Your task to perform on an android device: find which apps use the phone's location Image 0: 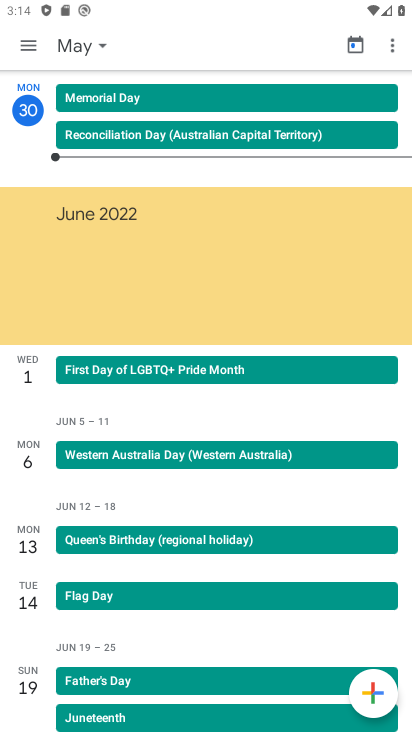
Step 0: press home button
Your task to perform on an android device: find which apps use the phone's location Image 1: 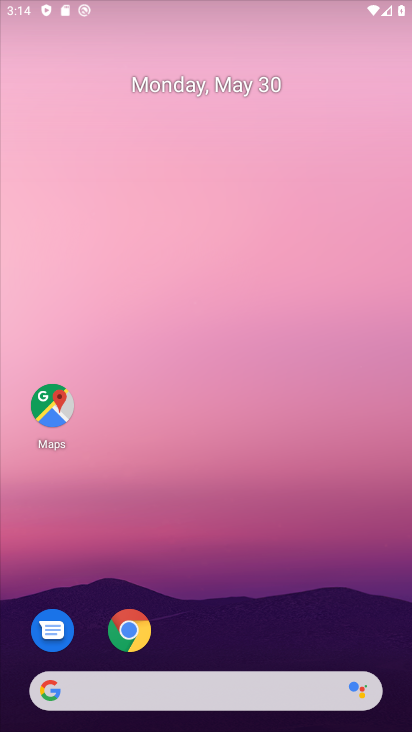
Step 1: drag from (227, 644) to (215, 109)
Your task to perform on an android device: find which apps use the phone's location Image 2: 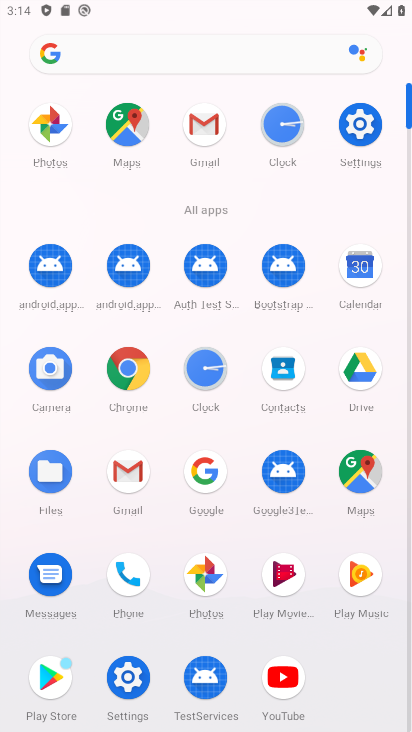
Step 2: click (128, 590)
Your task to perform on an android device: find which apps use the phone's location Image 3: 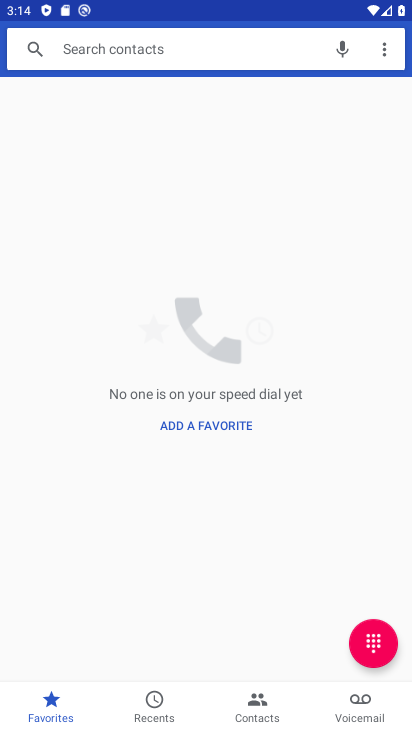
Step 3: press home button
Your task to perform on an android device: find which apps use the phone's location Image 4: 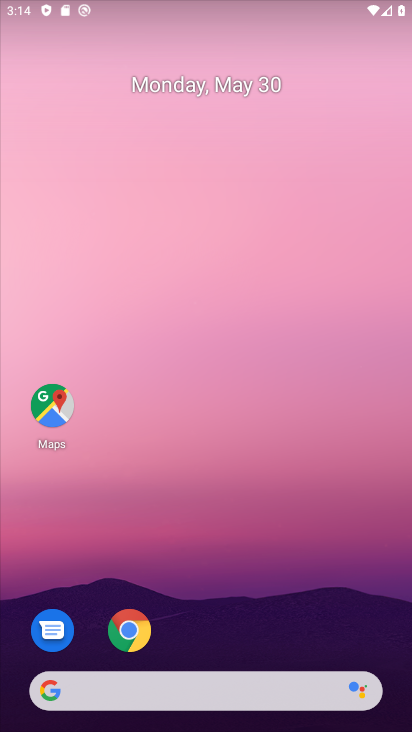
Step 4: drag from (269, 494) to (233, 0)
Your task to perform on an android device: find which apps use the phone's location Image 5: 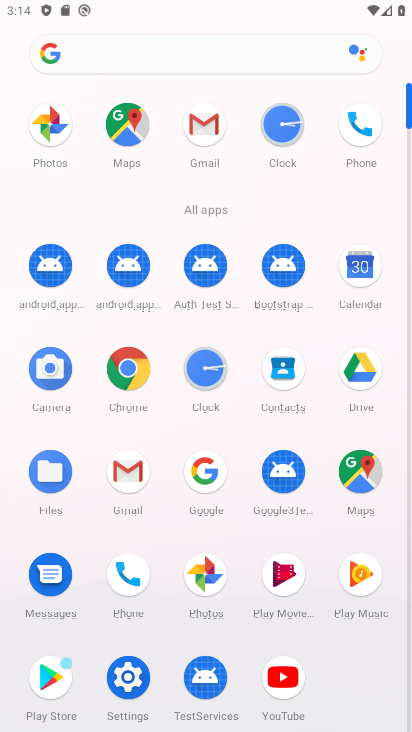
Step 5: click (128, 594)
Your task to perform on an android device: find which apps use the phone's location Image 6: 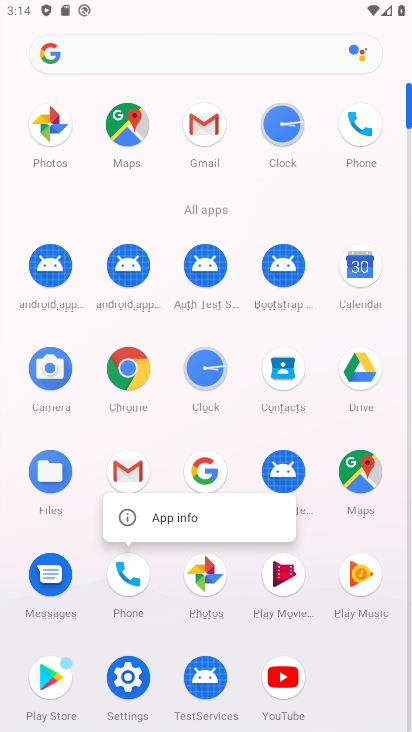
Step 6: click (128, 531)
Your task to perform on an android device: find which apps use the phone's location Image 7: 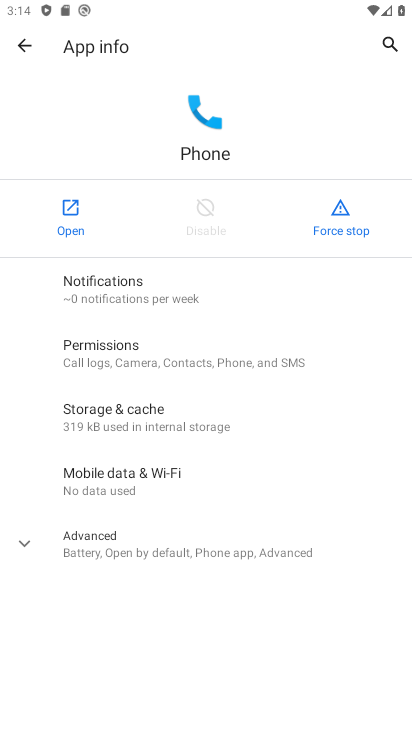
Step 7: click (176, 357)
Your task to perform on an android device: find which apps use the phone's location Image 8: 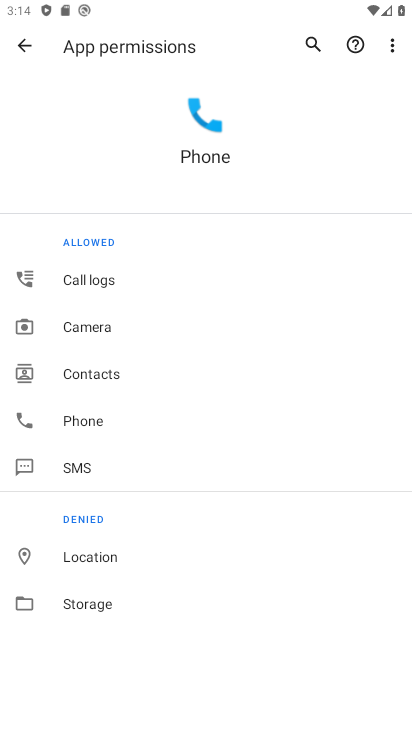
Step 8: click (76, 557)
Your task to perform on an android device: find which apps use the phone's location Image 9: 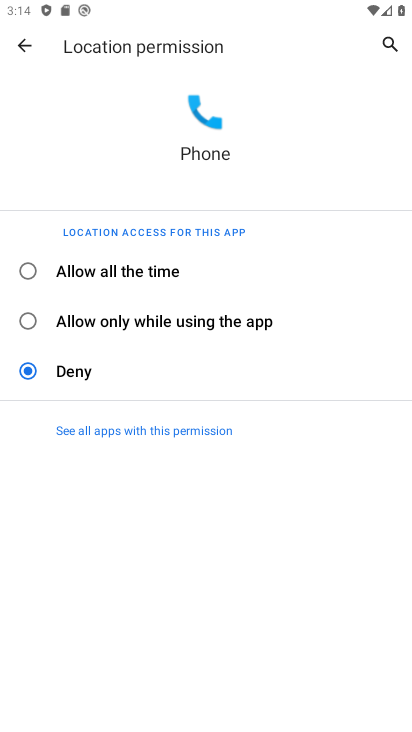
Step 9: click (83, 439)
Your task to perform on an android device: find which apps use the phone's location Image 10: 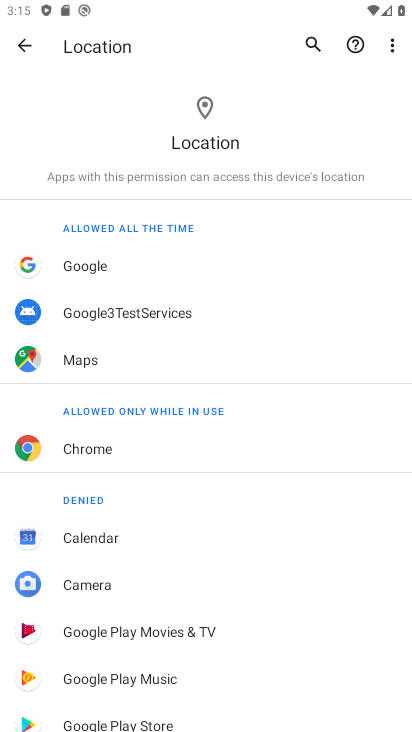
Step 10: task complete